Your task to perform on an android device: Open the phone app and click the voicemail tab. Image 0: 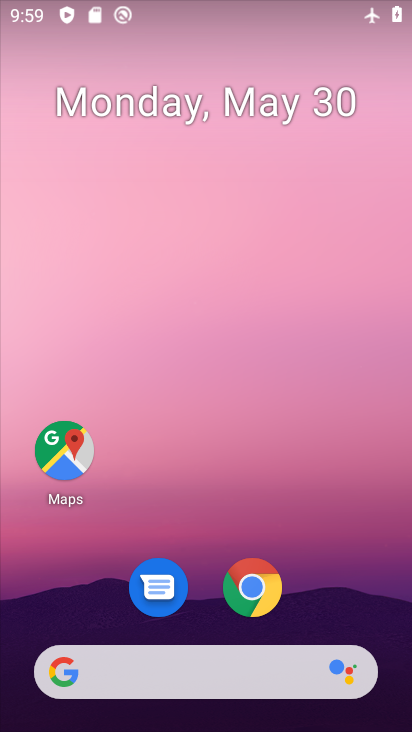
Step 0: drag from (299, 460) to (233, 37)
Your task to perform on an android device: Open the phone app and click the voicemail tab. Image 1: 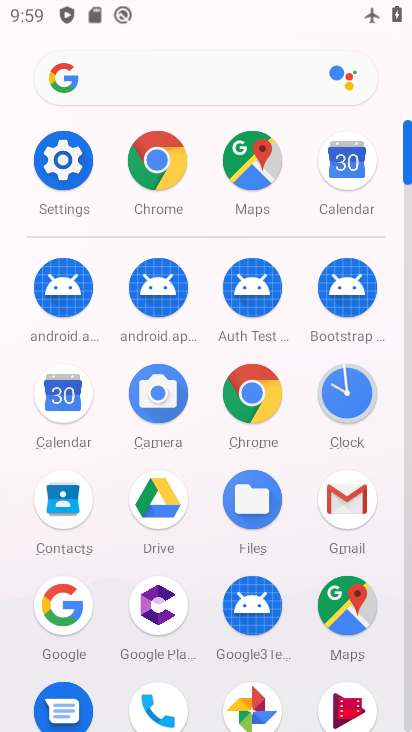
Step 1: drag from (9, 462) to (36, 183)
Your task to perform on an android device: Open the phone app and click the voicemail tab. Image 2: 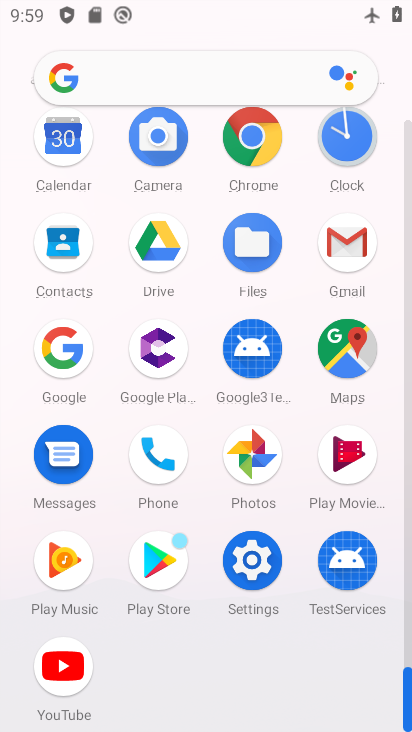
Step 2: drag from (14, 197) to (21, 515)
Your task to perform on an android device: Open the phone app and click the voicemail tab. Image 3: 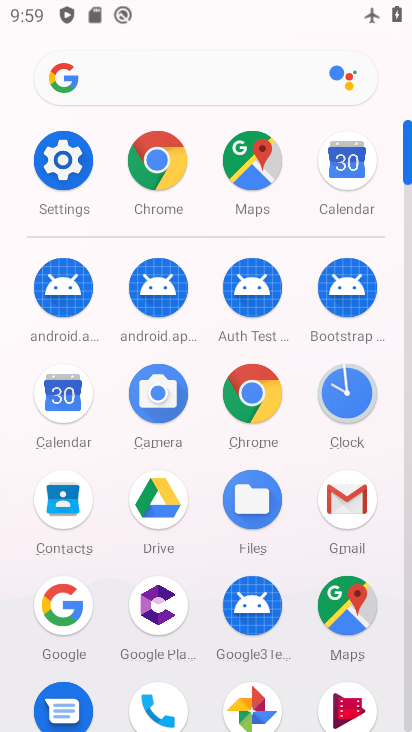
Step 3: drag from (18, 548) to (7, 195)
Your task to perform on an android device: Open the phone app and click the voicemail tab. Image 4: 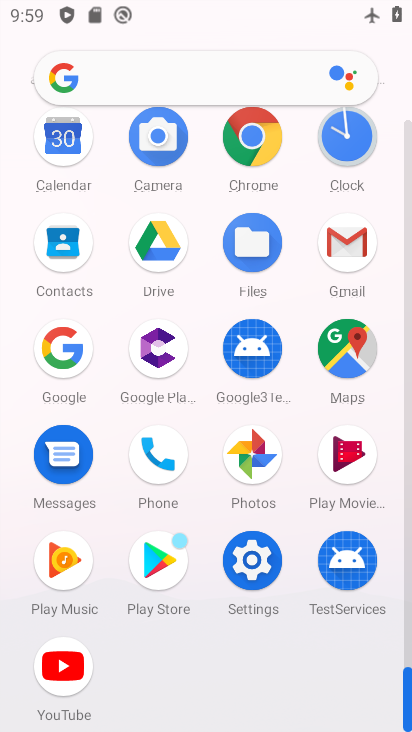
Step 4: click (157, 440)
Your task to perform on an android device: Open the phone app and click the voicemail tab. Image 5: 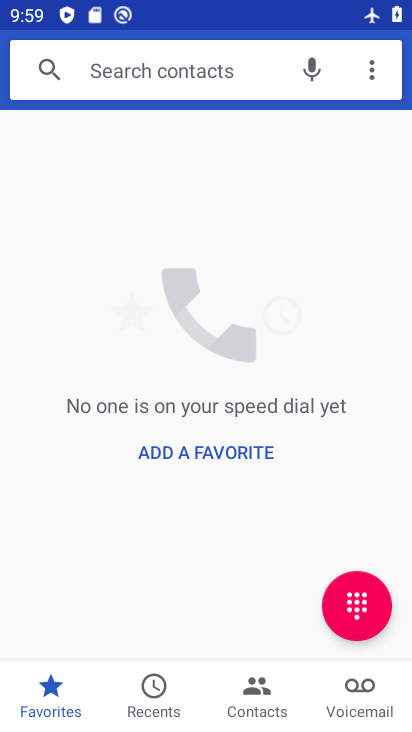
Step 5: click (356, 690)
Your task to perform on an android device: Open the phone app and click the voicemail tab. Image 6: 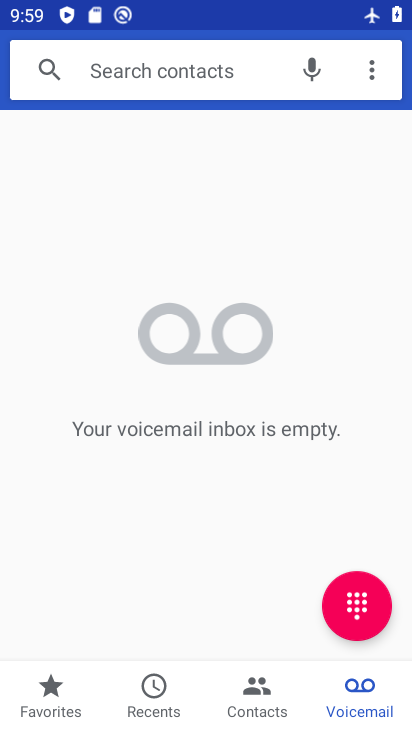
Step 6: task complete